Your task to perform on an android device: turn off wifi Image 0: 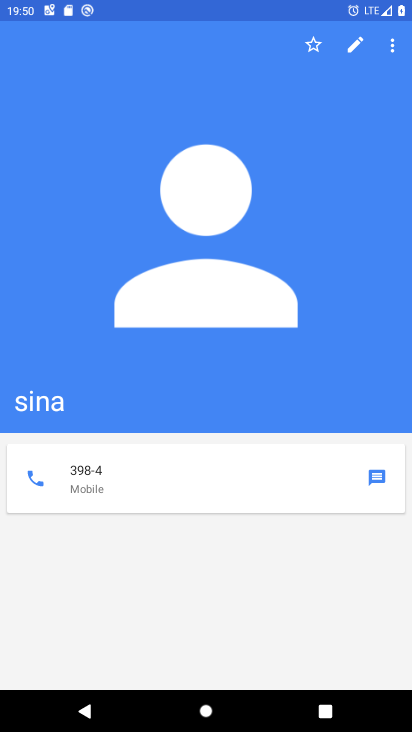
Step 0: press home button
Your task to perform on an android device: turn off wifi Image 1: 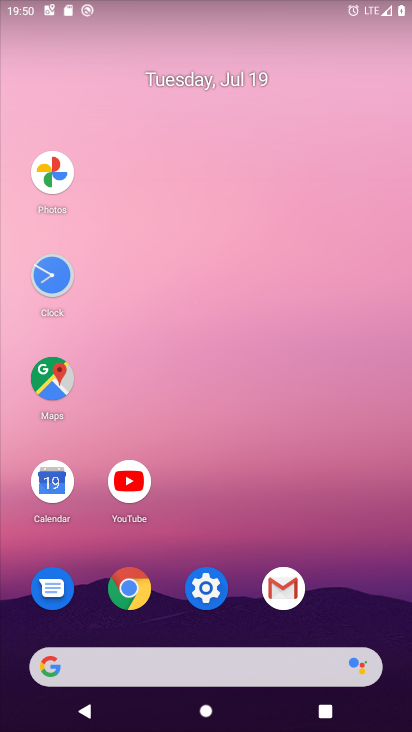
Step 1: click (208, 581)
Your task to perform on an android device: turn off wifi Image 2: 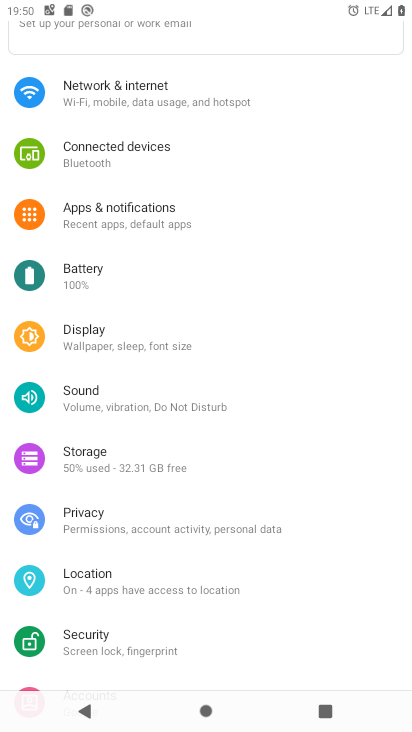
Step 2: click (130, 84)
Your task to perform on an android device: turn off wifi Image 3: 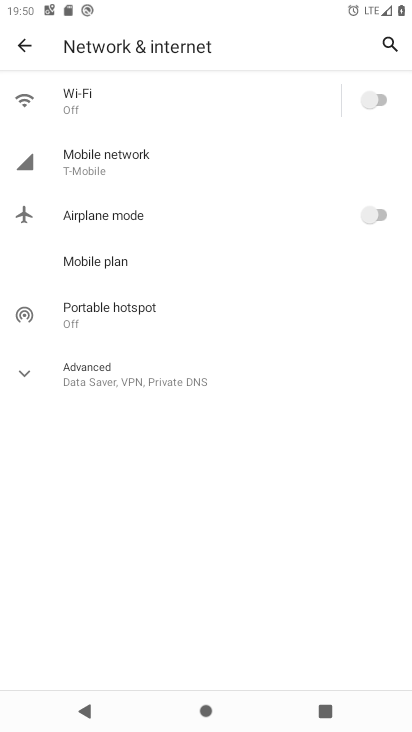
Step 3: task complete